Your task to perform on an android device: move an email to a new category in the gmail app Image 0: 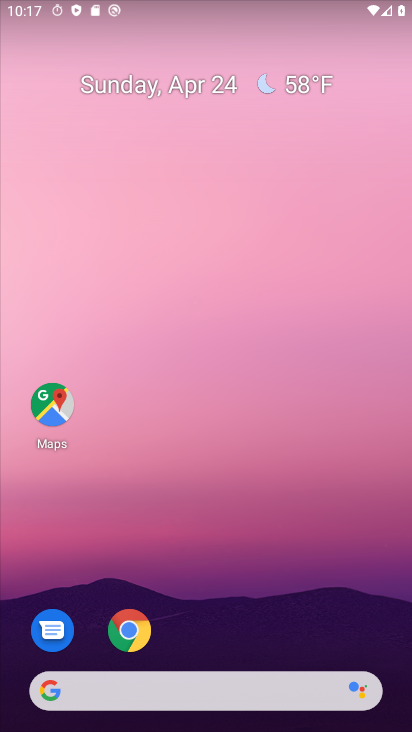
Step 0: drag from (247, 663) to (411, 230)
Your task to perform on an android device: move an email to a new category in the gmail app Image 1: 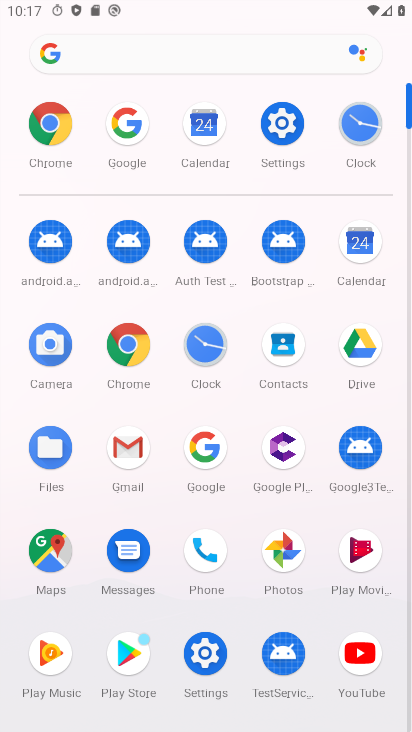
Step 1: click (134, 455)
Your task to perform on an android device: move an email to a new category in the gmail app Image 2: 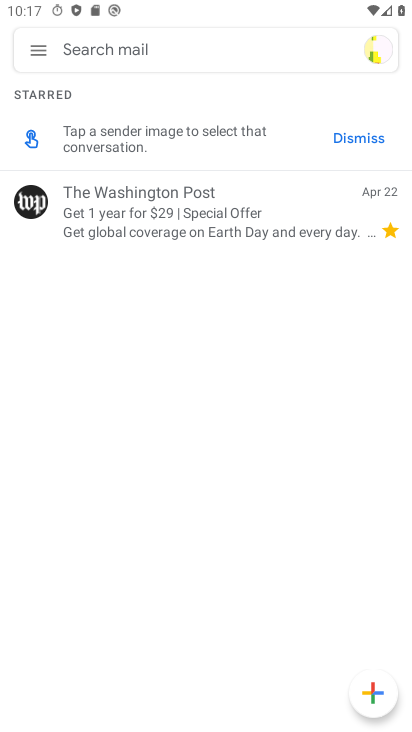
Step 2: click (173, 227)
Your task to perform on an android device: move an email to a new category in the gmail app Image 3: 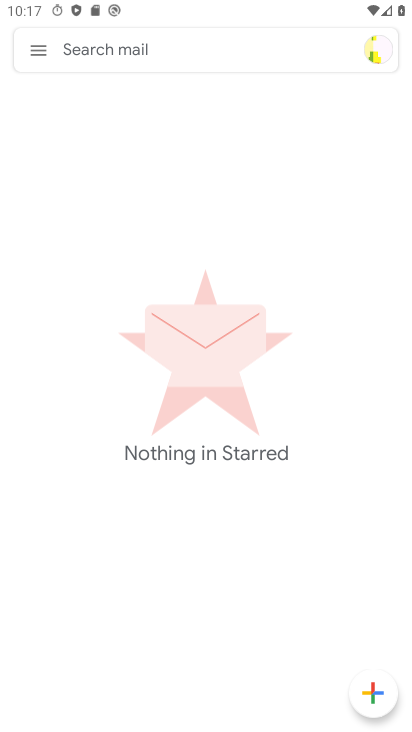
Step 3: click (40, 53)
Your task to perform on an android device: move an email to a new category in the gmail app Image 4: 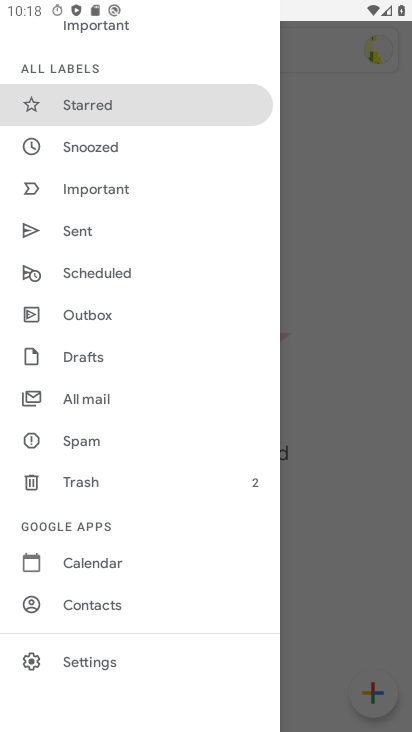
Step 4: click (112, 395)
Your task to perform on an android device: move an email to a new category in the gmail app Image 5: 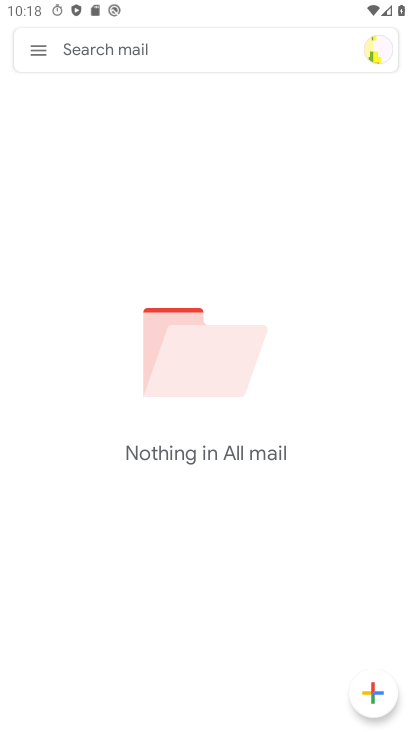
Step 5: task complete